Your task to perform on an android device: Do I have any events this weekend? Image 0: 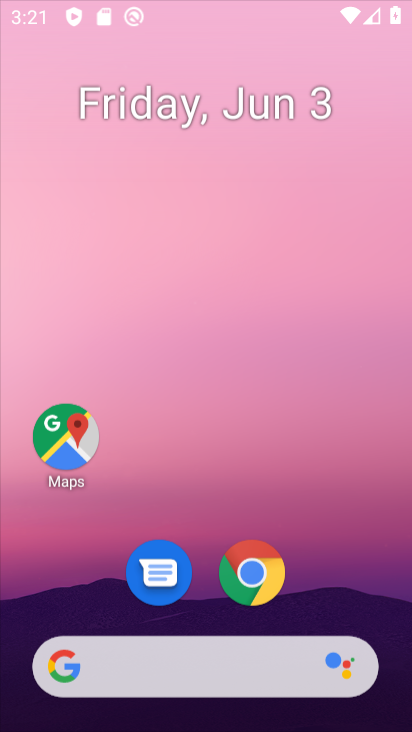
Step 0: drag from (350, 328) to (342, 188)
Your task to perform on an android device: Do I have any events this weekend? Image 1: 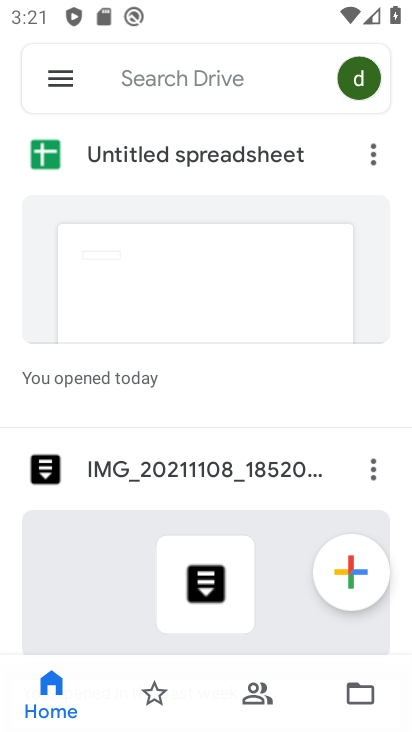
Step 1: press home button
Your task to perform on an android device: Do I have any events this weekend? Image 2: 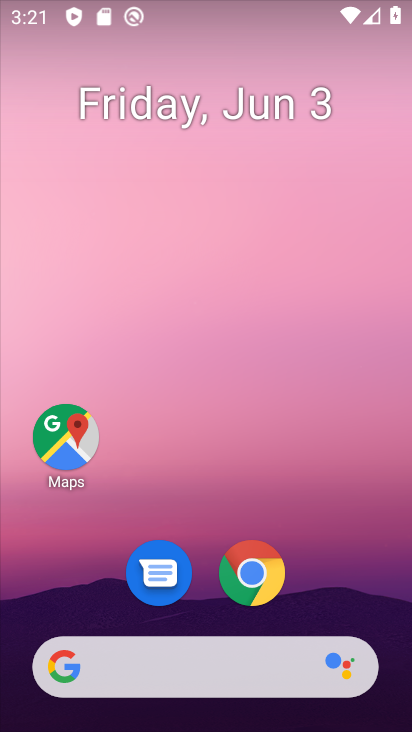
Step 2: drag from (387, 715) to (299, 264)
Your task to perform on an android device: Do I have any events this weekend? Image 3: 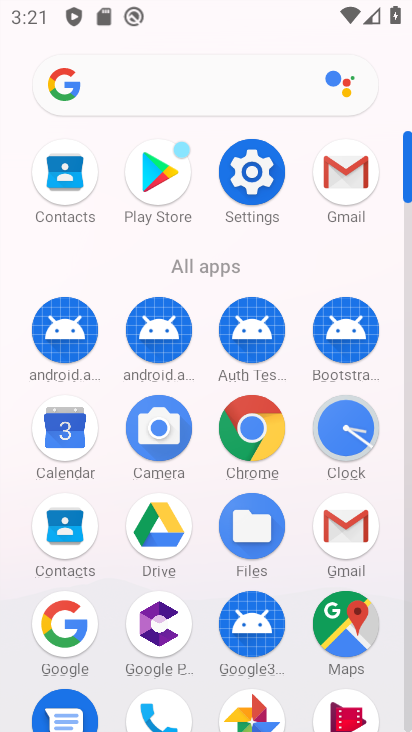
Step 3: click (55, 443)
Your task to perform on an android device: Do I have any events this weekend? Image 4: 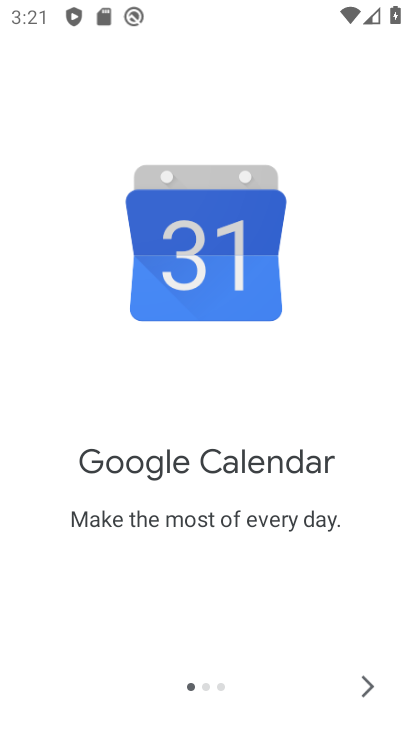
Step 4: click (368, 681)
Your task to perform on an android device: Do I have any events this weekend? Image 5: 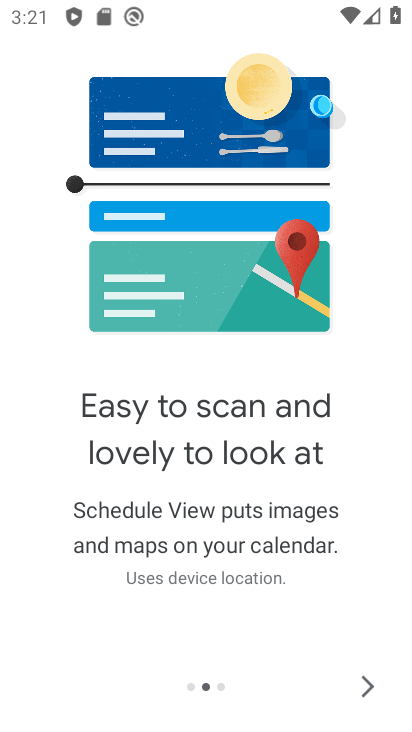
Step 5: click (367, 681)
Your task to perform on an android device: Do I have any events this weekend? Image 6: 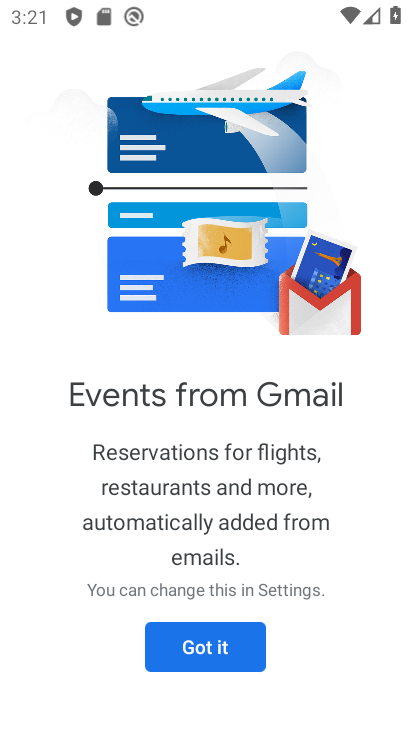
Step 6: click (213, 642)
Your task to perform on an android device: Do I have any events this weekend? Image 7: 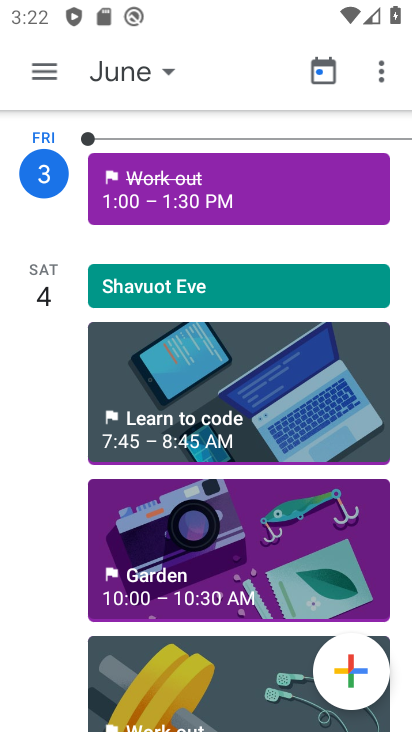
Step 7: click (35, 66)
Your task to perform on an android device: Do I have any events this weekend? Image 8: 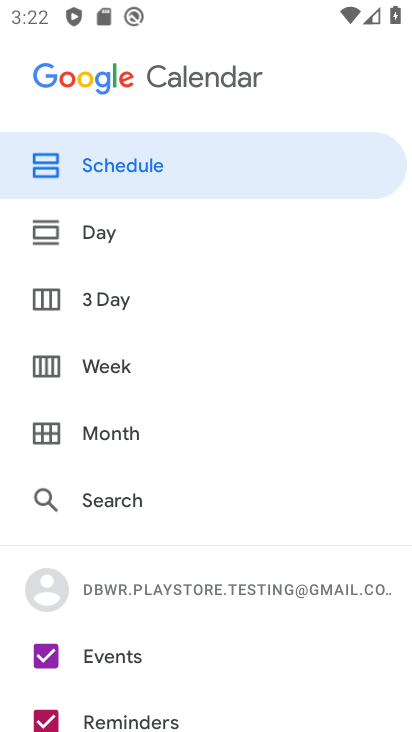
Step 8: click (78, 368)
Your task to perform on an android device: Do I have any events this weekend? Image 9: 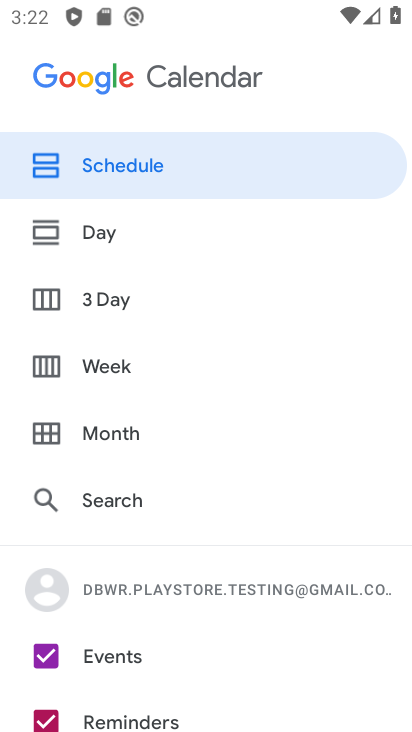
Step 9: click (96, 368)
Your task to perform on an android device: Do I have any events this weekend? Image 10: 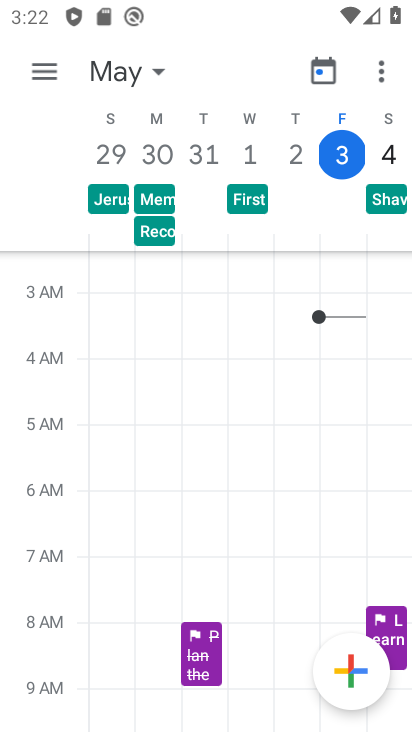
Step 10: click (32, 73)
Your task to perform on an android device: Do I have any events this weekend? Image 11: 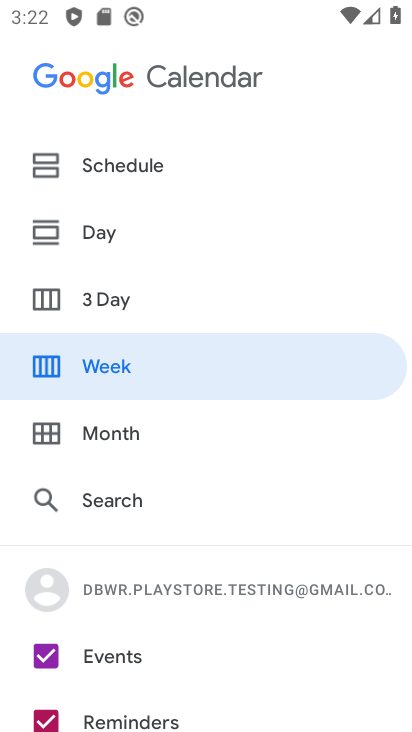
Step 11: click (118, 164)
Your task to perform on an android device: Do I have any events this weekend? Image 12: 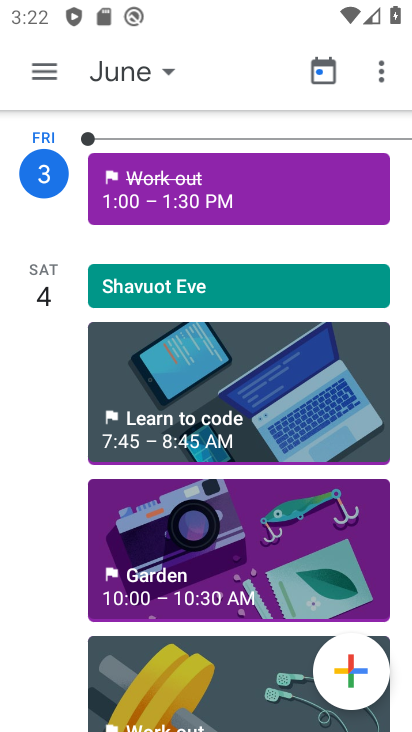
Step 12: task complete